Your task to perform on an android device: turn notification dots off Image 0: 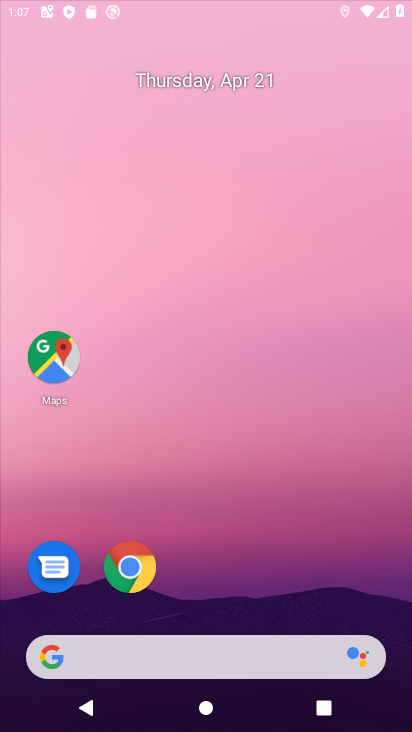
Step 0: click (126, 570)
Your task to perform on an android device: turn notification dots off Image 1: 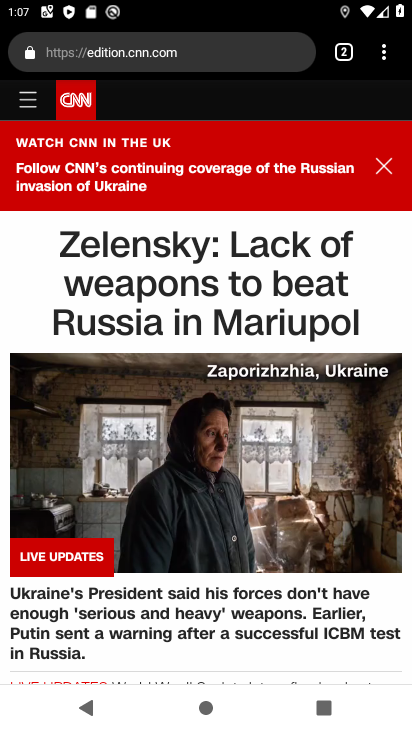
Step 1: press back button
Your task to perform on an android device: turn notification dots off Image 2: 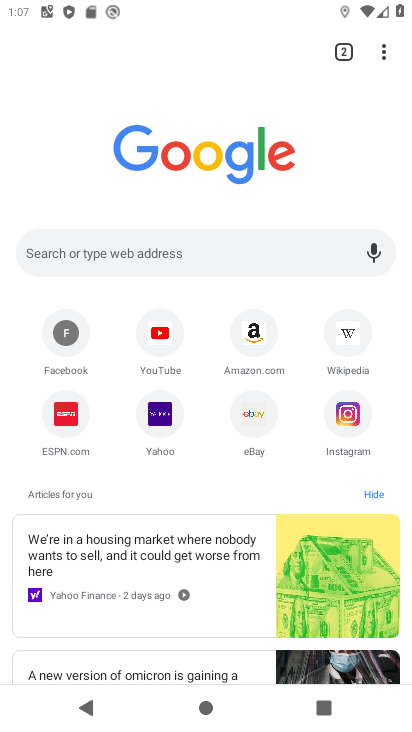
Step 2: press back button
Your task to perform on an android device: turn notification dots off Image 3: 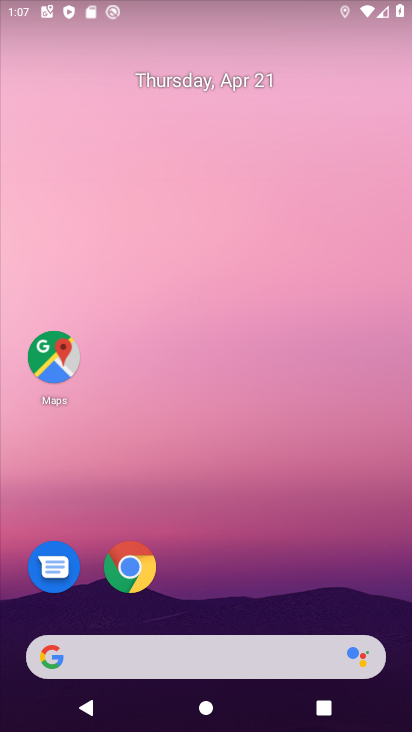
Step 3: drag from (199, 545) to (306, 0)
Your task to perform on an android device: turn notification dots off Image 4: 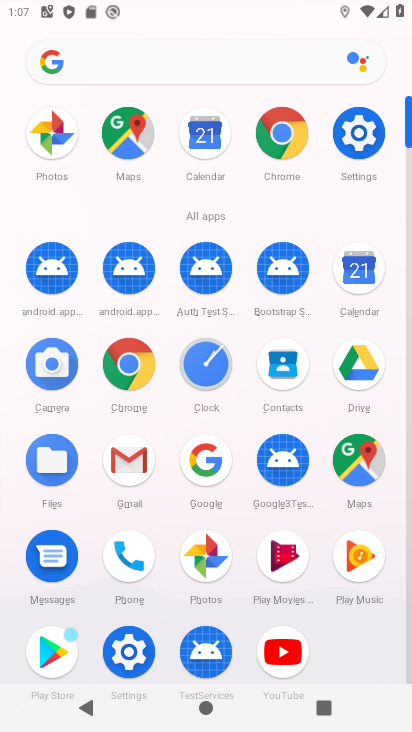
Step 4: click (367, 123)
Your task to perform on an android device: turn notification dots off Image 5: 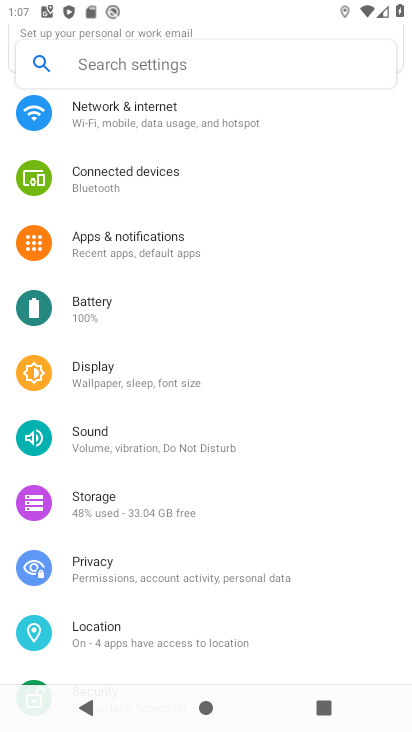
Step 5: click (147, 247)
Your task to perform on an android device: turn notification dots off Image 6: 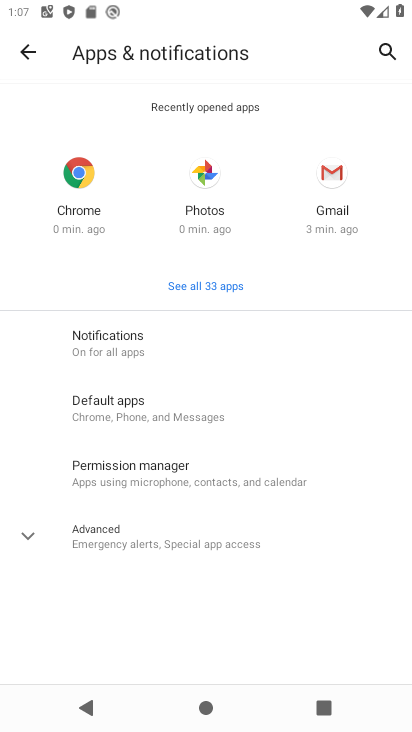
Step 6: click (142, 334)
Your task to perform on an android device: turn notification dots off Image 7: 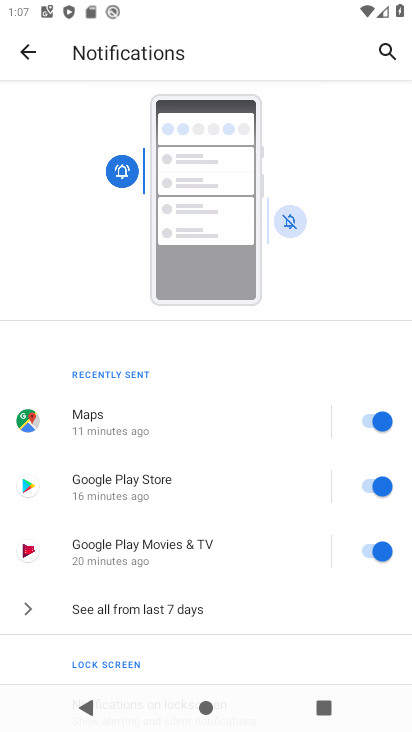
Step 7: drag from (179, 606) to (251, 135)
Your task to perform on an android device: turn notification dots off Image 8: 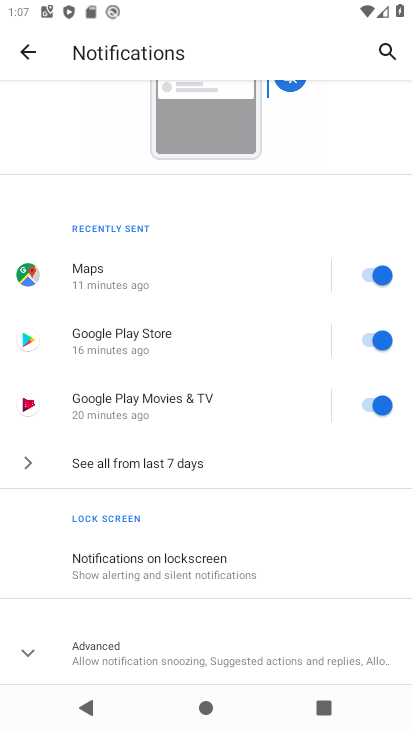
Step 8: drag from (174, 640) to (203, 198)
Your task to perform on an android device: turn notification dots off Image 9: 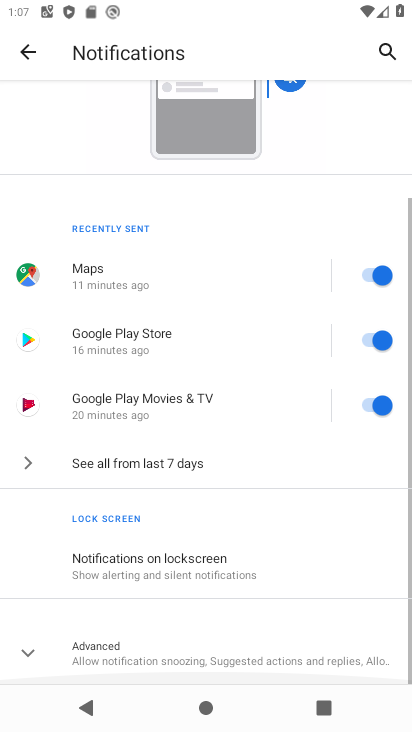
Step 9: click (202, 640)
Your task to perform on an android device: turn notification dots off Image 10: 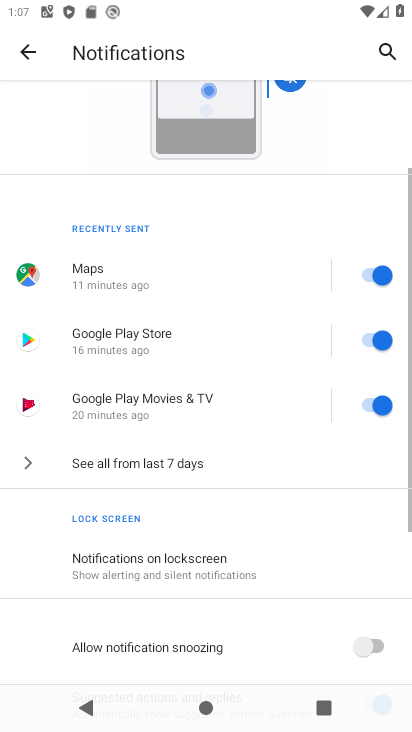
Step 10: drag from (202, 640) to (228, 250)
Your task to perform on an android device: turn notification dots off Image 11: 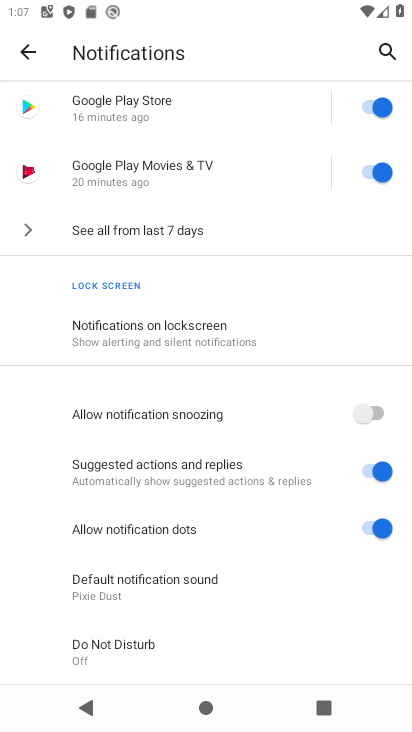
Step 11: click (383, 520)
Your task to perform on an android device: turn notification dots off Image 12: 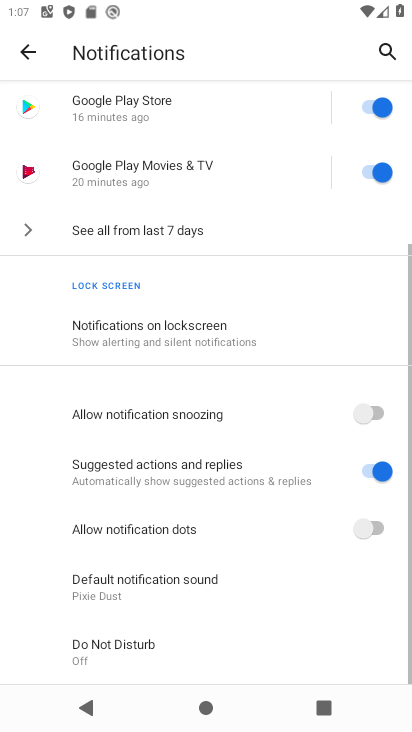
Step 12: task complete